Your task to perform on an android device: Open battery settings Image 0: 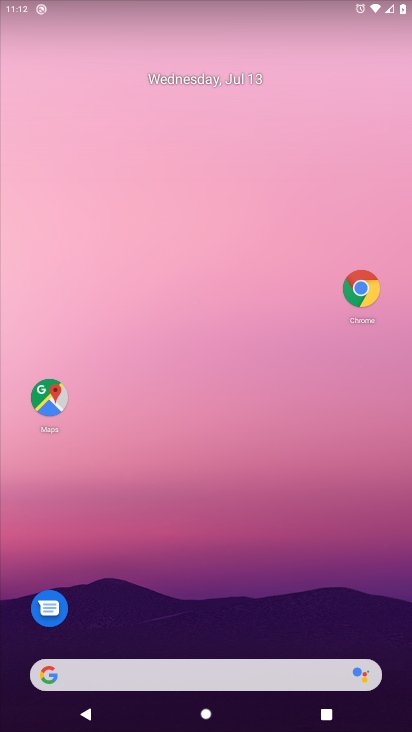
Step 0: drag from (40, 724) to (254, 6)
Your task to perform on an android device: Open battery settings Image 1: 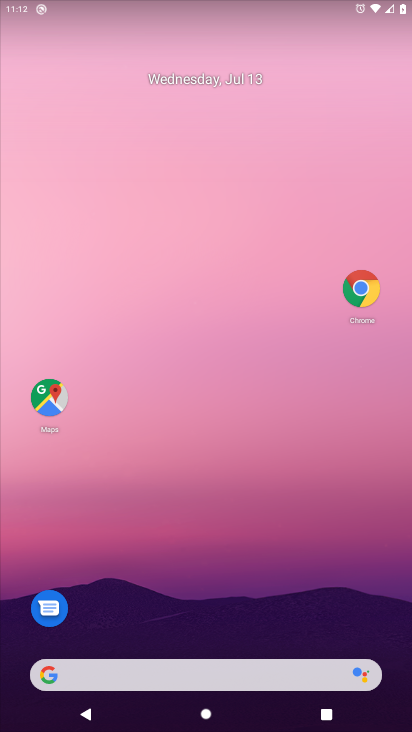
Step 1: drag from (90, 635) to (186, 231)
Your task to perform on an android device: Open battery settings Image 2: 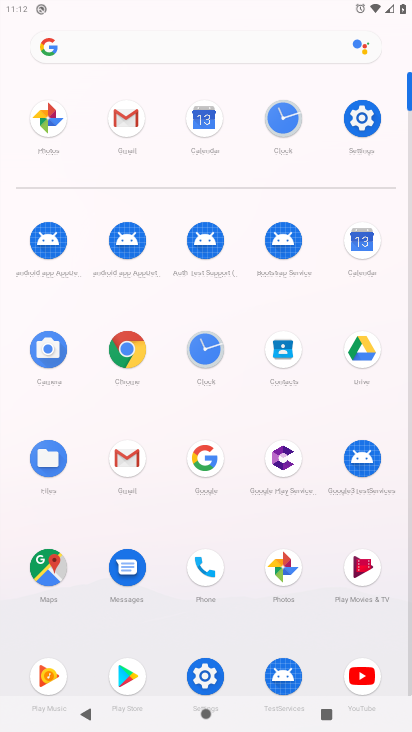
Step 2: click (206, 668)
Your task to perform on an android device: Open battery settings Image 3: 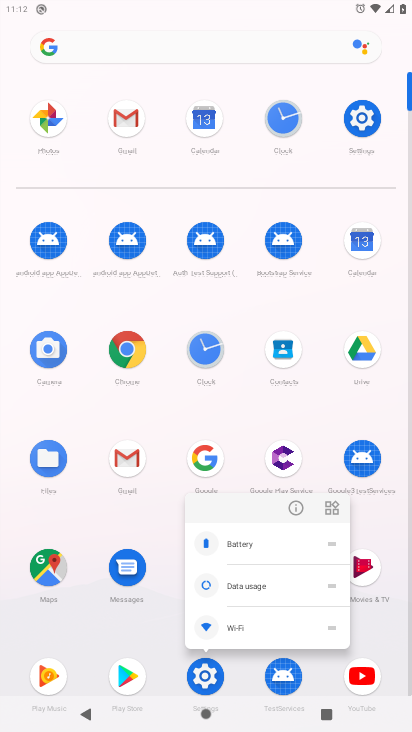
Step 3: click (207, 667)
Your task to perform on an android device: Open battery settings Image 4: 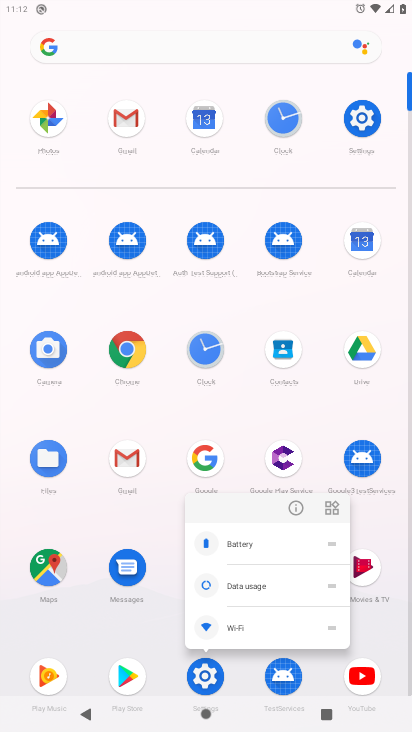
Step 4: drag from (200, 680) to (270, 672)
Your task to perform on an android device: Open battery settings Image 5: 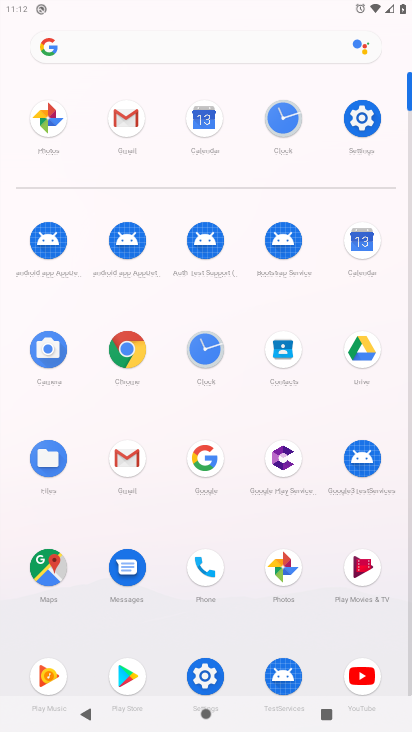
Step 5: click (175, 672)
Your task to perform on an android device: Open battery settings Image 6: 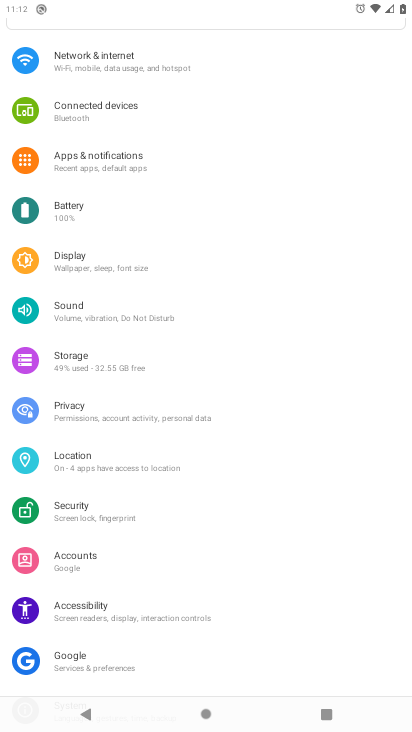
Step 6: click (79, 205)
Your task to perform on an android device: Open battery settings Image 7: 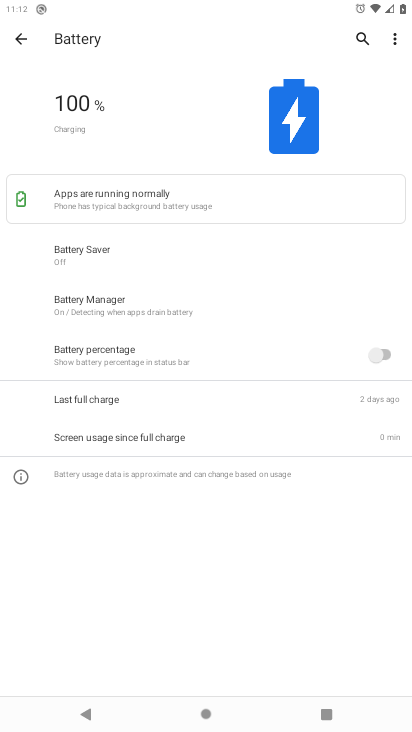
Step 7: task complete